Your task to perform on an android device: Open calendar and show me the first week of next month Image 0: 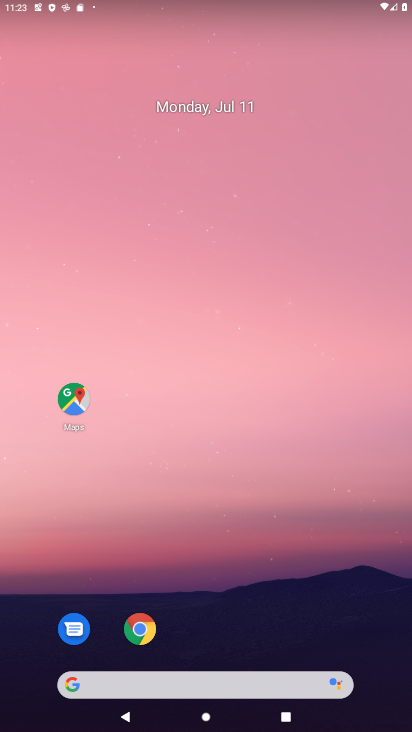
Step 0: drag from (255, 661) to (284, 150)
Your task to perform on an android device: Open calendar and show me the first week of next month Image 1: 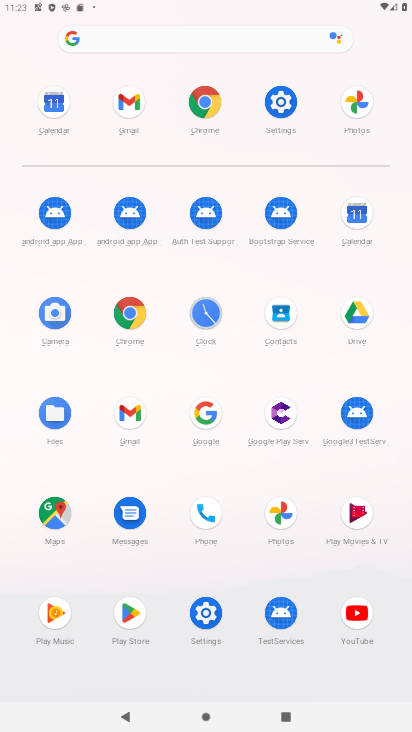
Step 1: click (277, 97)
Your task to perform on an android device: Open calendar and show me the first week of next month Image 2: 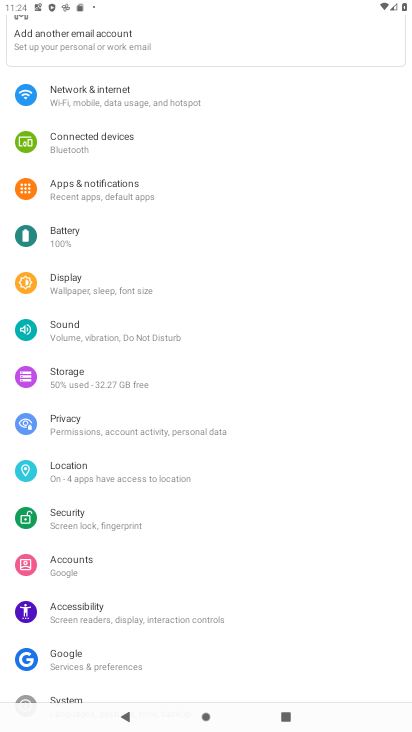
Step 2: press home button
Your task to perform on an android device: Open calendar and show me the first week of next month Image 3: 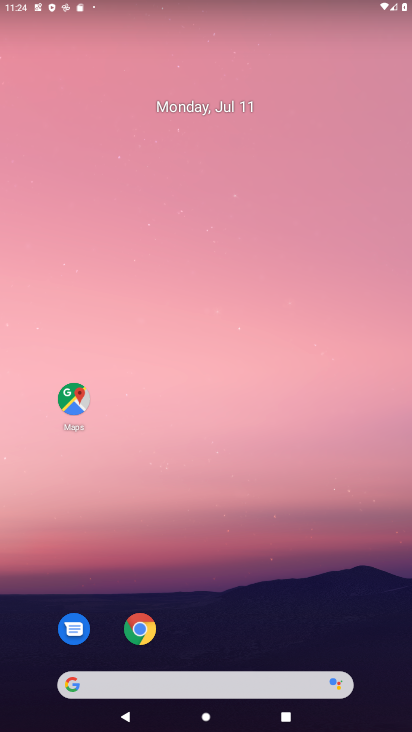
Step 3: drag from (259, 647) to (196, 176)
Your task to perform on an android device: Open calendar and show me the first week of next month Image 4: 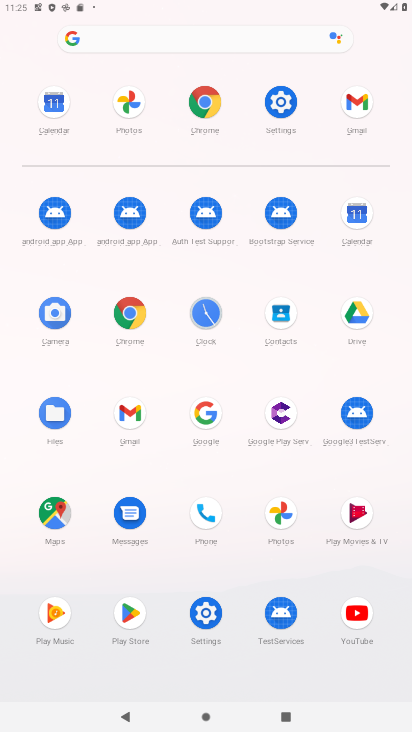
Step 4: click (223, 308)
Your task to perform on an android device: Open calendar and show me the first week of next month Image 5: 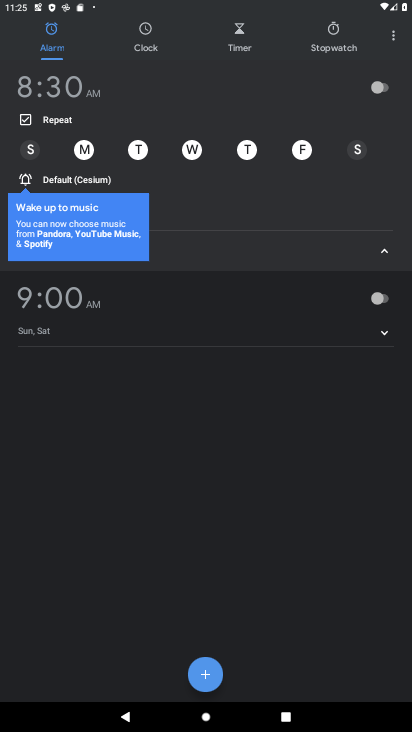
Step 5: task complete